Your task to perform on an android device: Search for Italian restaurants on Maps Image 0: 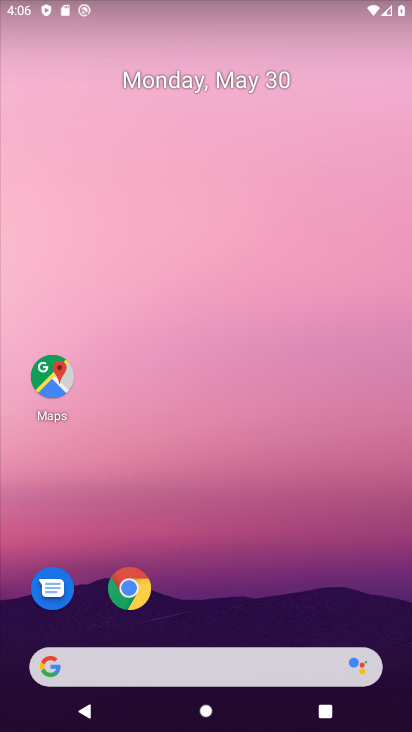
Step 0: click (61, 358)
Your task to perform on an android device: Search for Italian restaurants on Maps Image 1: 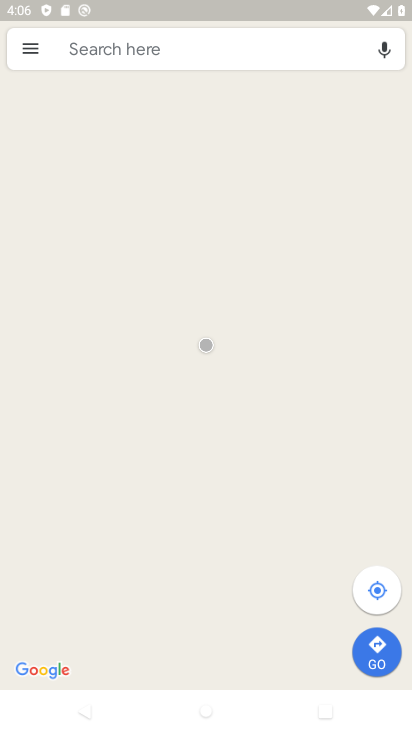
Step 1: click (143, 49)
Your task to perform on an android device: Search for Italian restaurants on Maps Image 2: 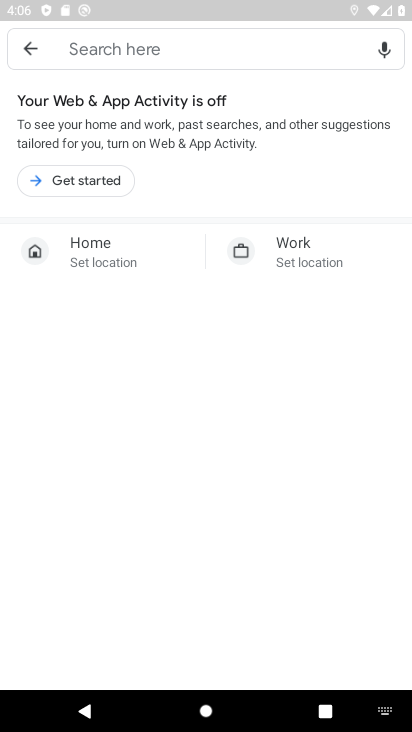
Step 2: type "Italian restaurants"
Your task to perform on an android device: Search for Italian restaurants on Maps Image 3: 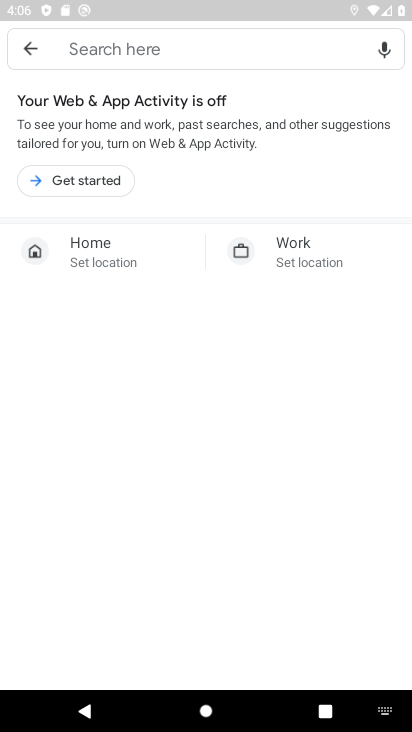
Step 3: click (160, 44)
Your task to perform on an android device: Search for Italian restaurants on Maps Image 4: 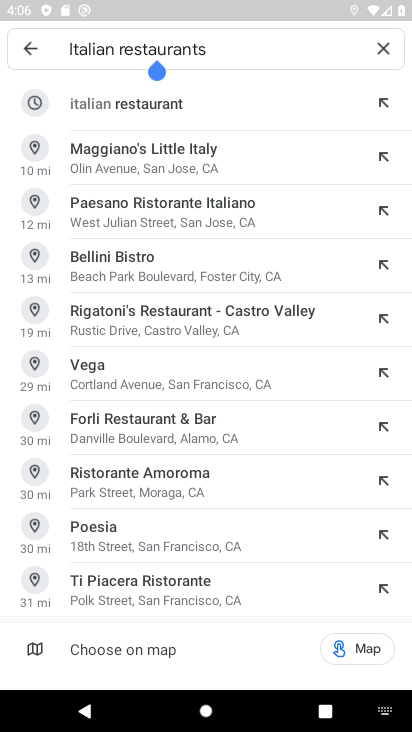
Step 4: click (147, 112)
Your task to perform on an android device: Search for Italian restaurants on Maps Image 5: 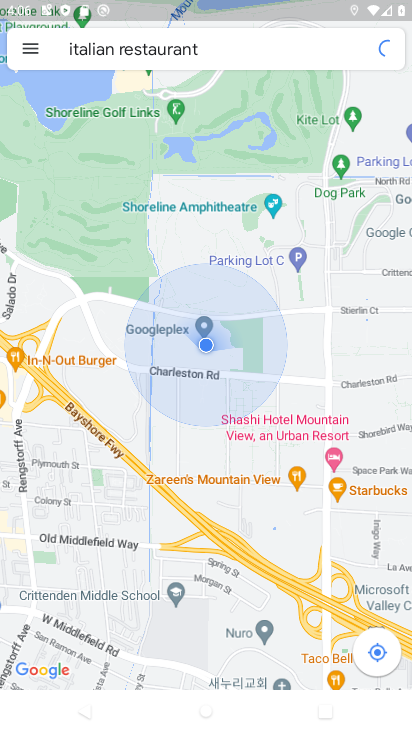
Step 5: task complete